Your task to perform on an android device: Open the Play Movies app and select the watchlist tab. Image 0: 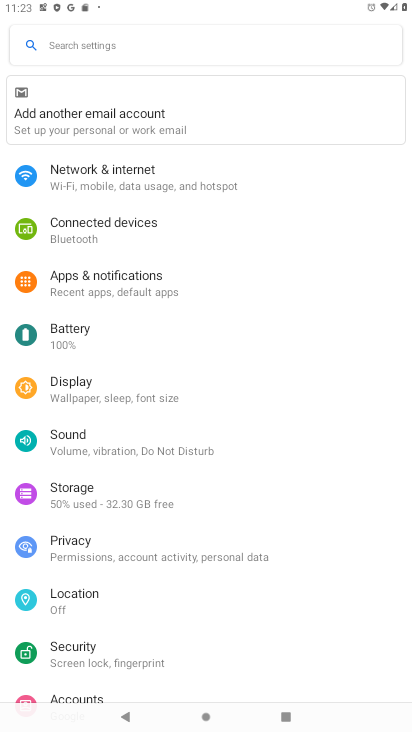
Step 0: press home button
Your task to perform on an android device: Open the Play Movies app and select the watchlist tab. Image 1: 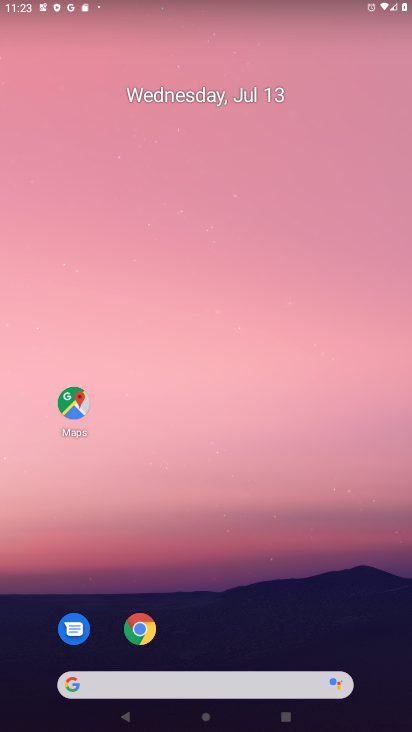
Step 1: drag from (304, 653) to (230, 229)
Your task to perform on an android device: Open the Play Movies app and select the watchlist tab. Image 2: 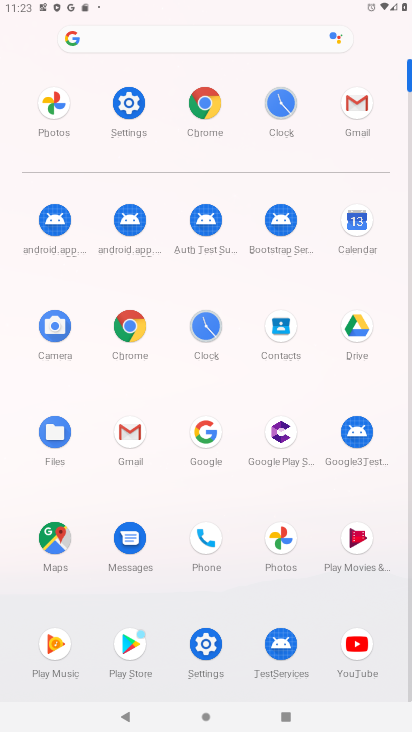
Step 2: click (343, 548)
Your task to perform on an android device: Open the Play Movies app and select the watchlist tab. Image 3: 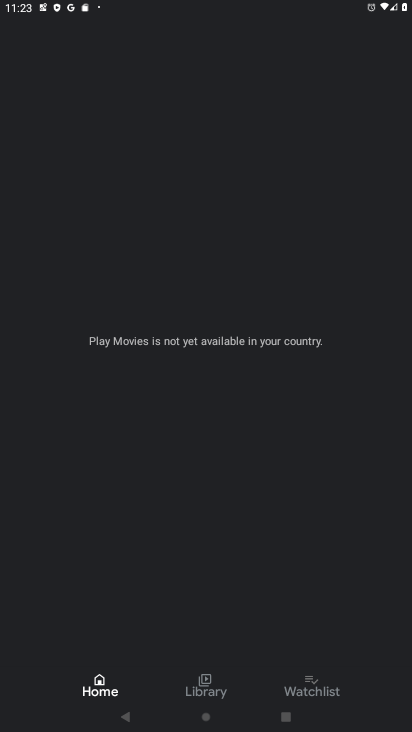
Step 3: click (331, 683)
Your task to perform on an android device: Open the Play Movies app and select the watchlist tab. Image 4: 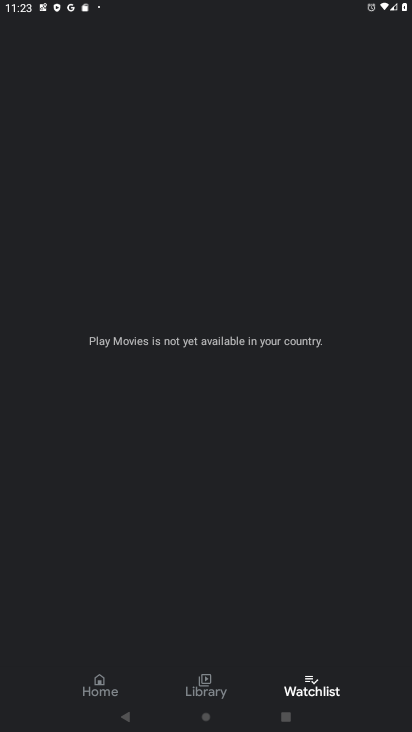
Step 4: task complete